Your task to perform on an android device: Open Google Chrome Image 0: 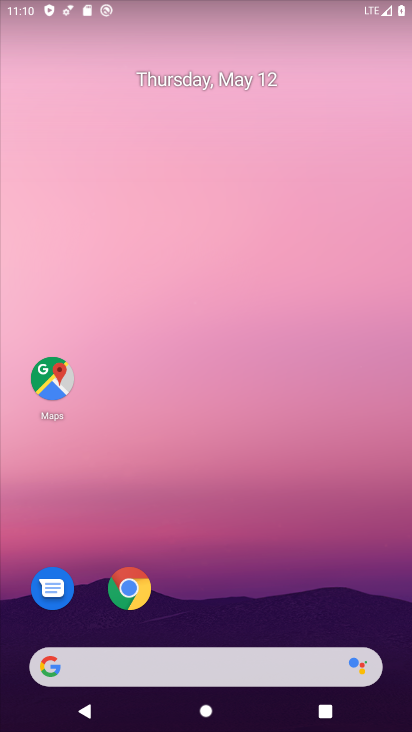
Step 0: click (128, 586)
Your task to perform on an android device: Open Google Chrome Image 1: 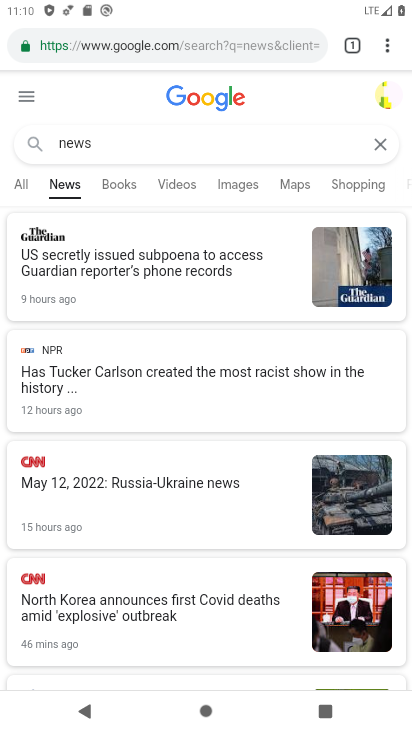
Step 1: task complete